Your task to perform on an android device: open app "NewsBreak: Local News & Alerts" Image 0: 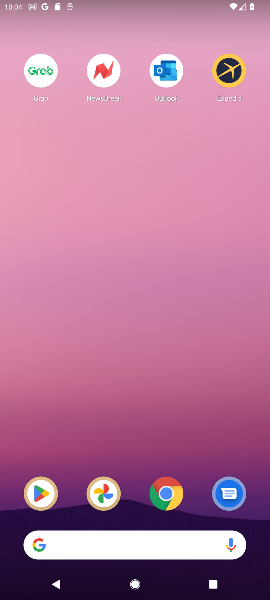
Step 0: click (41, 495)
Your task to perform on an android device: open app "NewsBreak: Local News & Alerts" Image 1: 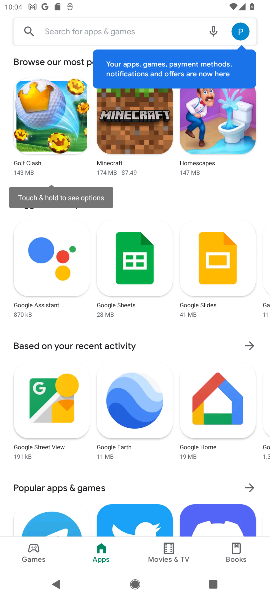
Step 1: click (151, 25)
Your task to perform on an android device: open app "NewsBreak: Local News & Alerts" Image 2: 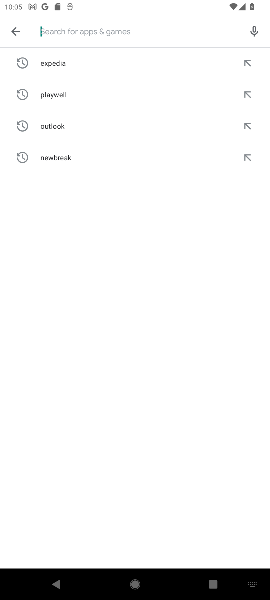
Step 2: type "newsbreak"
Your task to perform on an android device: open app "NewsBreak: Local News & Alerts" Image 3: 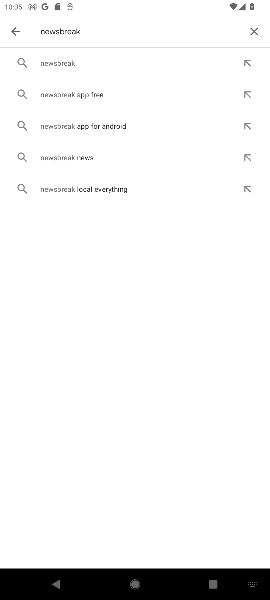
Step 3: click (122, 60)
Your task to perform on an android device: open app "NewsBreak: Local News & Alerts" Image 4: 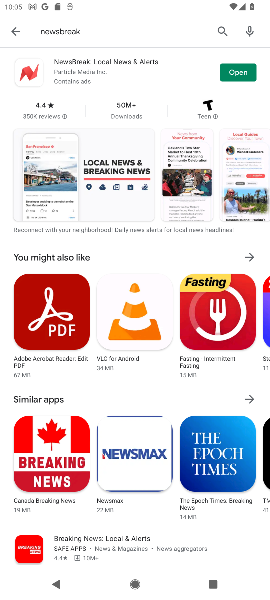
Step 4: click (234, 71)
Your task to perform on an android device: open app "NewsBreak: Local News & Alerts" Image 5: 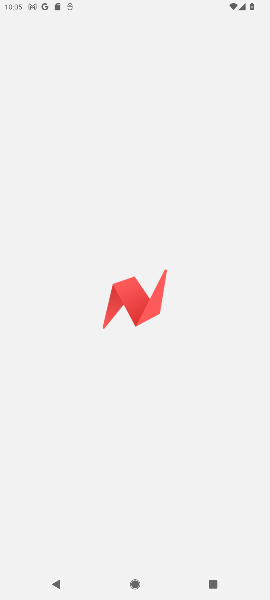
Step 5: task complete